Your task to perform on an android device: star an email in the gmail app Image 0: 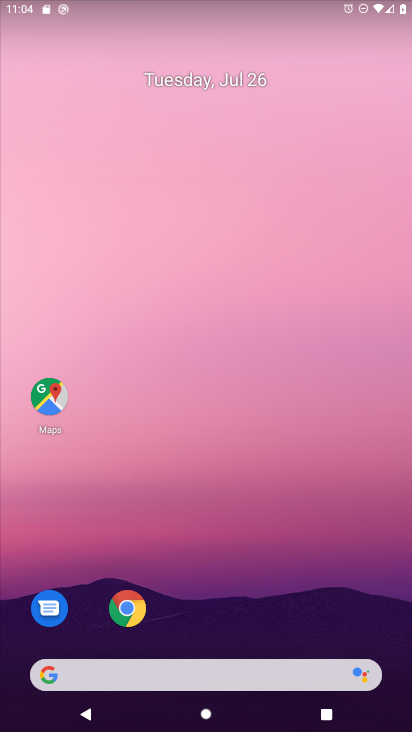
Step 0: drag from (329, 605) to (269, 120)
Your task to perform on an android device: star an email in the gmail app Image 1: 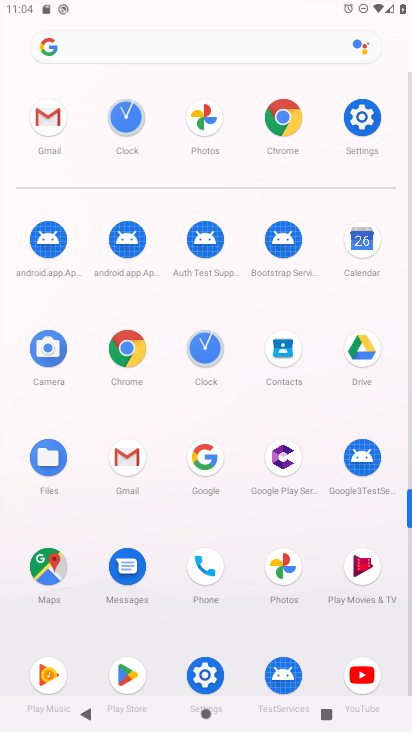
Step 1: click (140, 465)
Your task to perform on an android device: star an email in the gmail app Image 2: 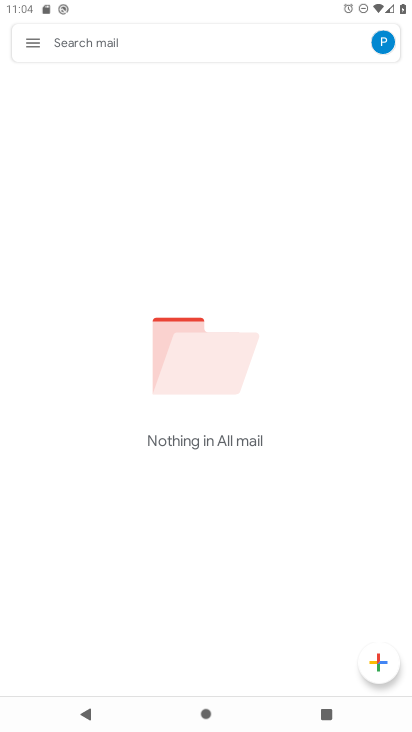
Step 2: task complete